Your task to perform on an android device: delete location history Image 0: 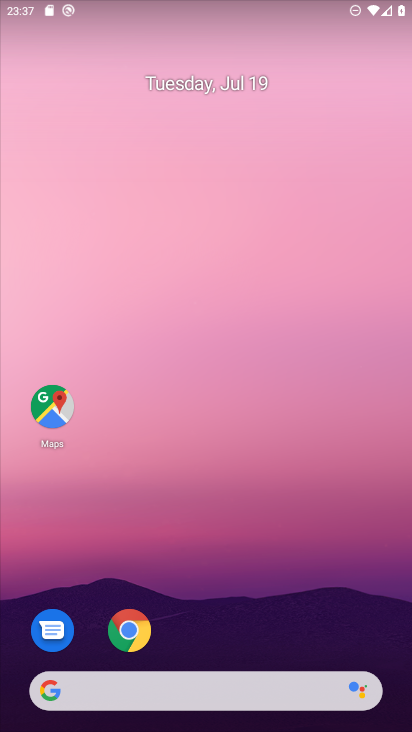
Step 0: drag from (209, 624) to (153, 176)
Your task to perform on an android device: delete location history Image 1: 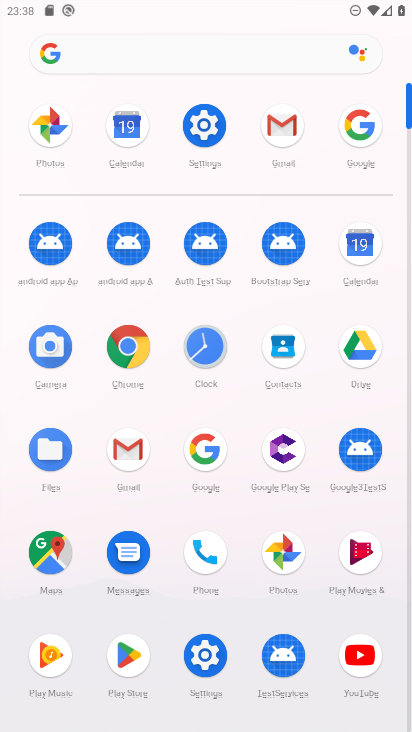
Step 1: click (57, 567)
Your task to perform on an android device: delete location history Image 2: 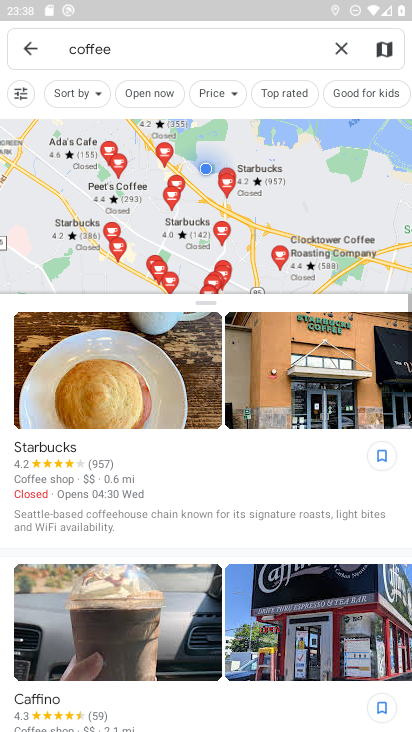
Step 2: click (25, 56)
Your task to perform on an android device: delete location history Image 3: 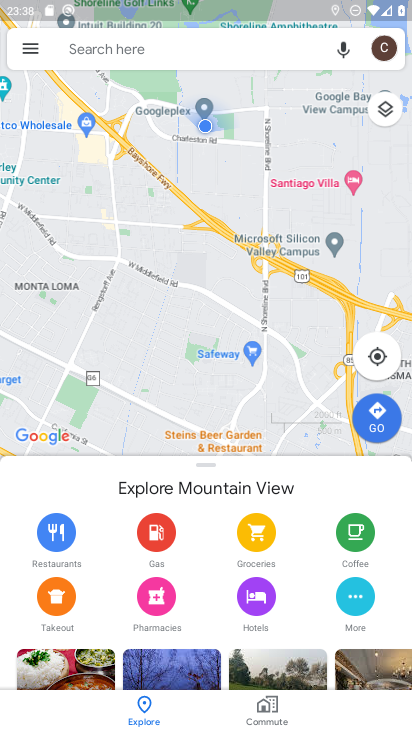
Step 3: click (33, 55)
Your task to perform on an android device: delete location history Image 4: 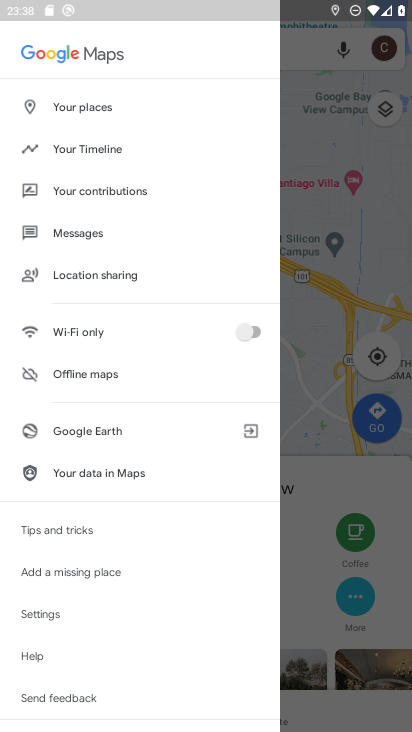
Step 4: click (84, 155)
Your task to perform on an android device: delete location history Image 5: 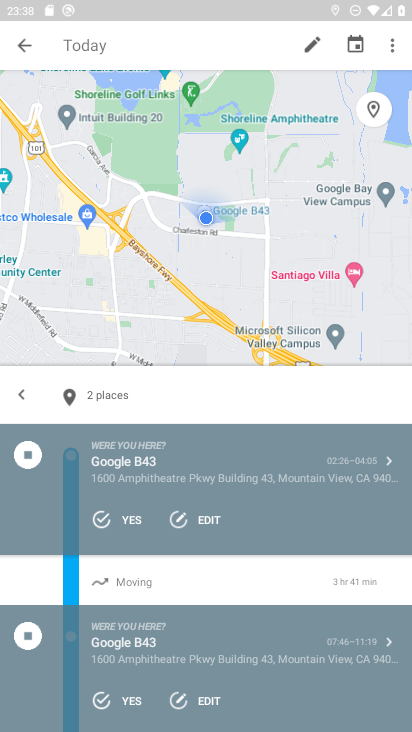
Step 5: click (390, 41)
Your task to perform on an android device: delete location history Image 6: 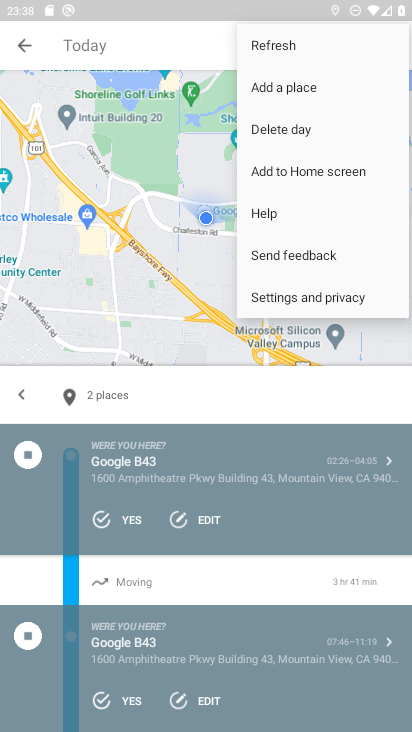
Step 6: click (309, 286)
Your task to perform on an android device: delete location history Image 7: 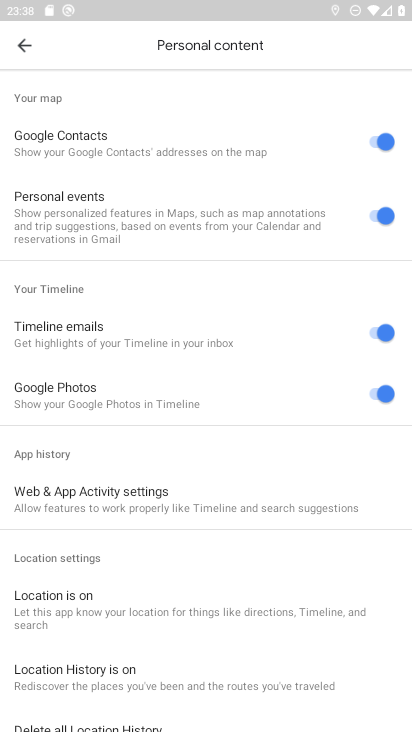
Step 7: drag from (168, 670) to (164, 415)
Your task to perform on an android device: delete location history Image 8: 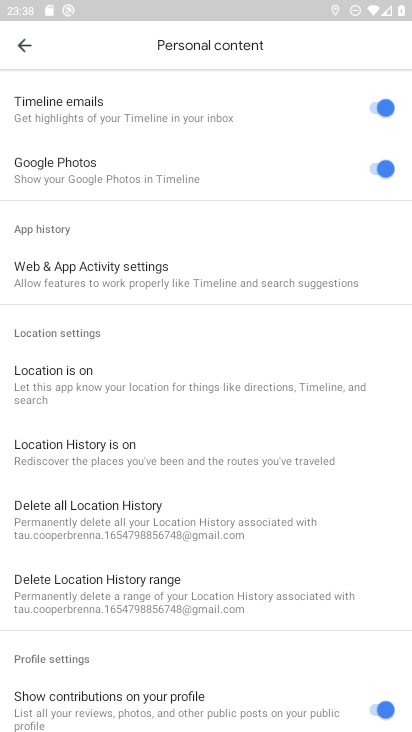
Step 8: click (149, 525)
Your task to perform on an android device: delete location history Image 9: 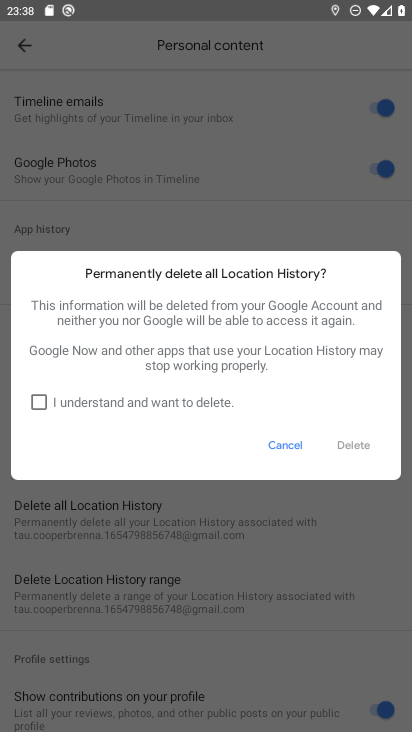
Step 9: click (169, 408)
Your task to perform on an android device: delete location history Image 10: 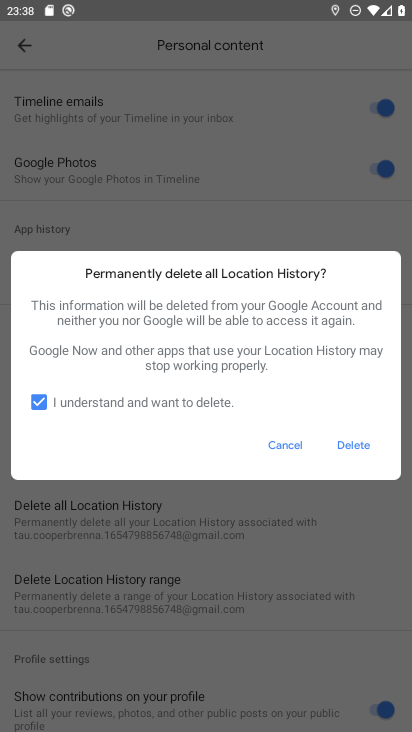
Step 10: click (365, 444)
Your task to perform on an android device: delete location history Image 11: 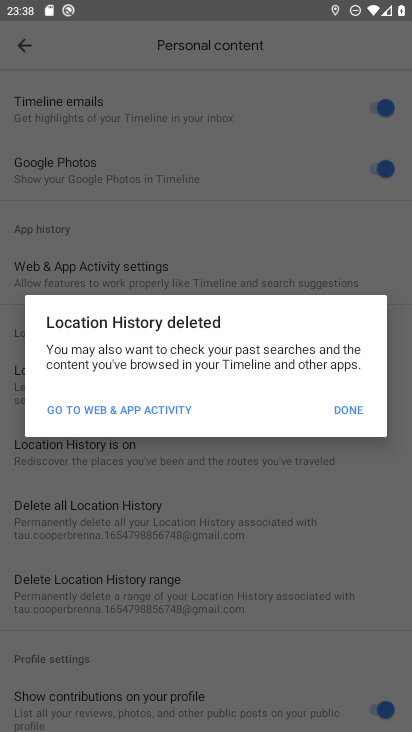
Step 11: click (363, 410)
Your task to perform on an android device: delete location history Image 12: 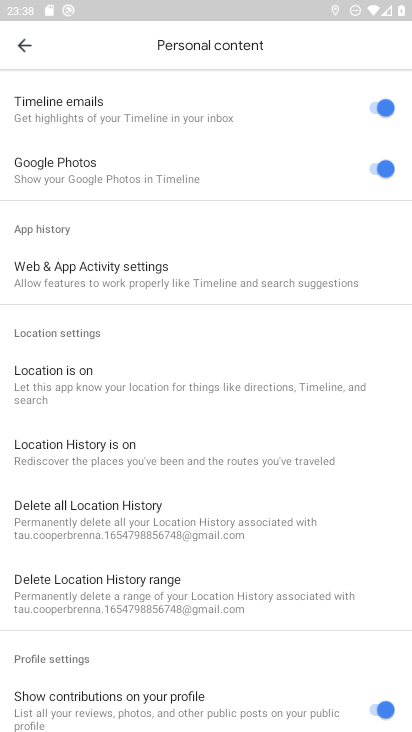
Step 12: task complete